Your task to perform on an android device: toggle wifi Image 0: 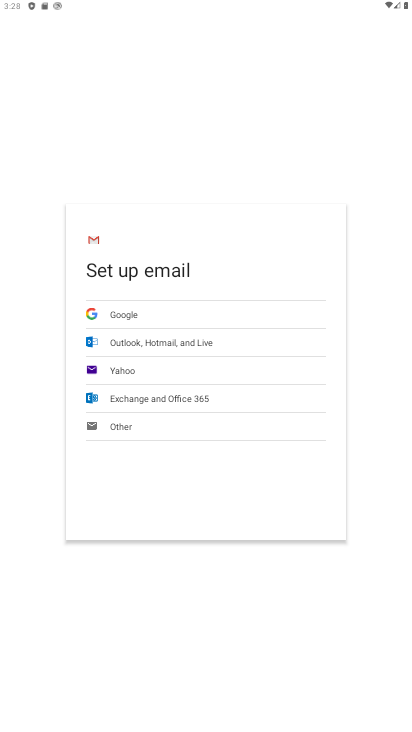
Step 0: press home button
Your task to perform on an android device: toggle wifi Image 1: 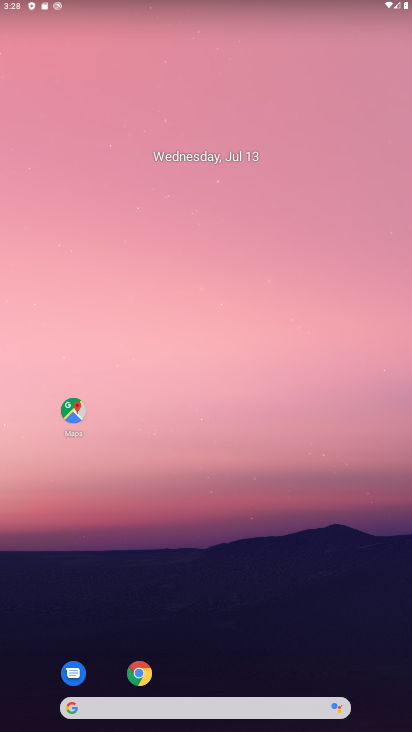
Step 1: drag from (196, 564) to (229, 137)
Your task to perform on an android device: toggle wifi Image 2: 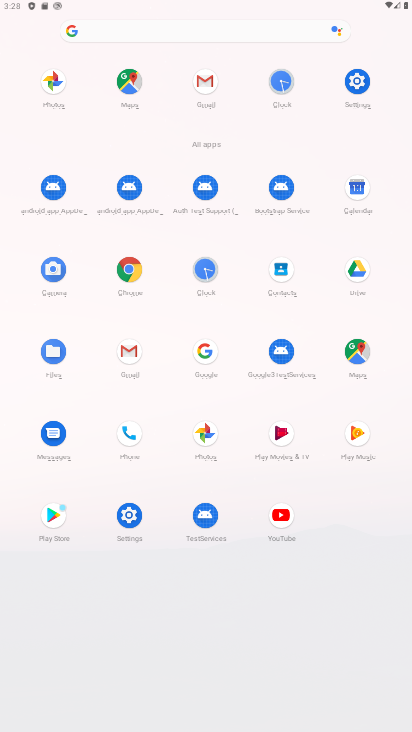
Step 2: click (134, 526)
Your task to perform on an android device: toggle wifi Image 3: 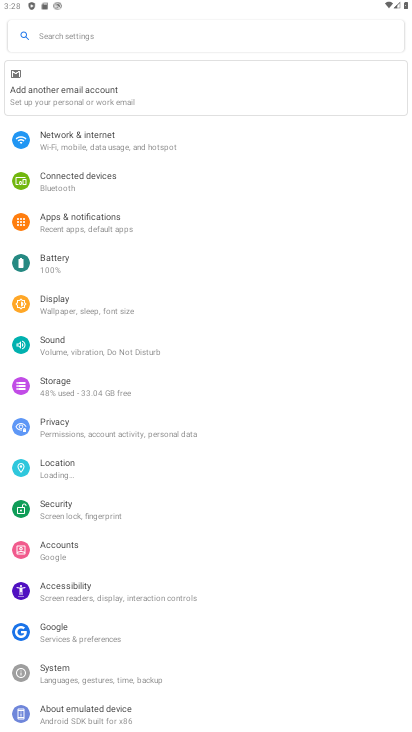
Step 3: click (144, 149)
Your task to perform on an android device: toggle wifi Image 4: 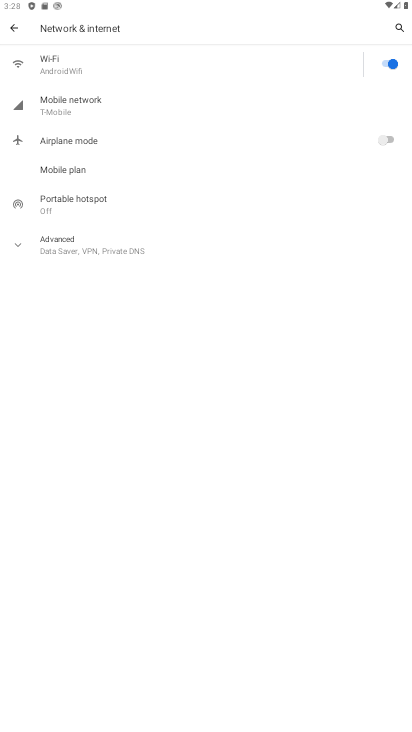
Step 4: click (387, 56)
Your task to perform on an android device: toggle wifi Image 5: 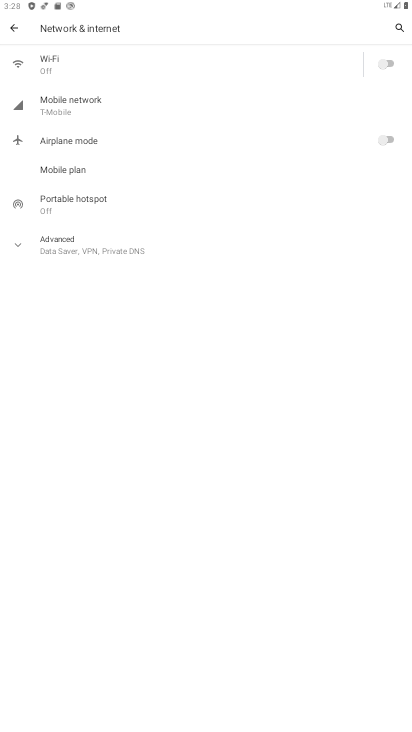
Step 5: task complete